Your task to perform on an android device: turn off airplane mode Image 0: 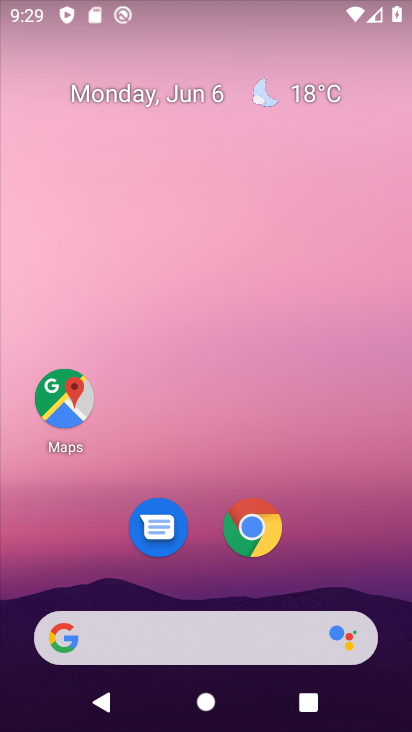
Step 0: drag from (187, 600) to (159, 23)
Your task to perform on an android device: turn off airplane mode Image 1: 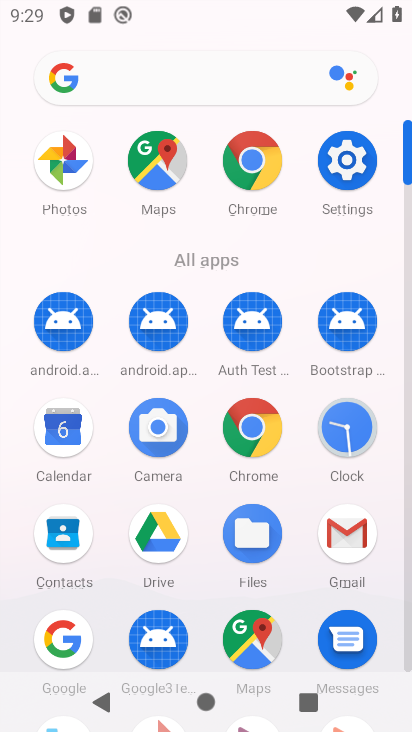
Step 1: click (323, 151)
Your task to perform on an android device: turn off airplane mode Image 2: 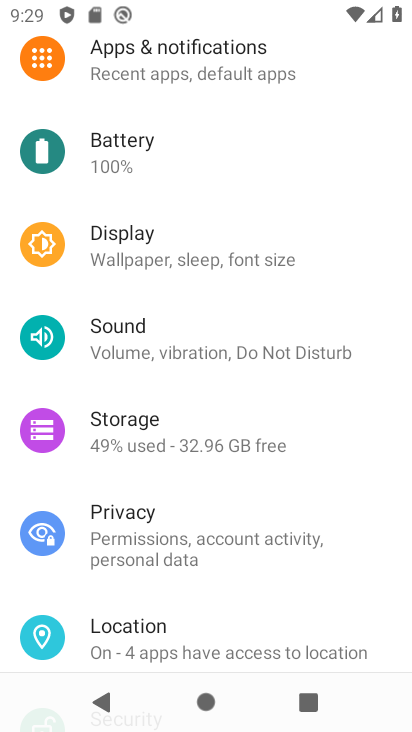
Step 2: drag from (323, 151) to (193, 580)
Your task to perform on an android device: turn off airplane mode Image 3: 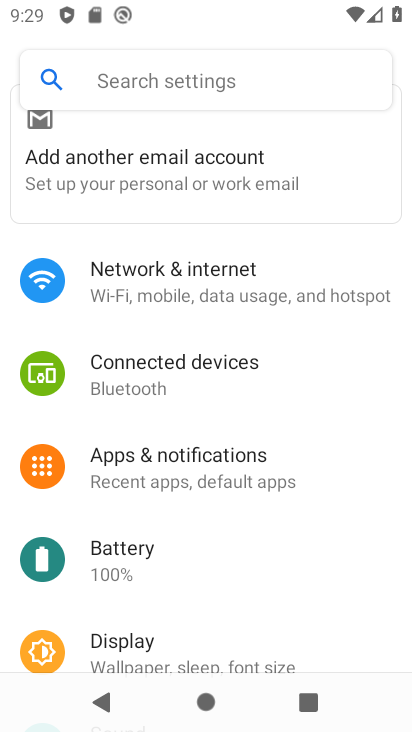
Step 3: click (143, 305)
Your task to perform on an android device: turn off airplane mode Image 4: 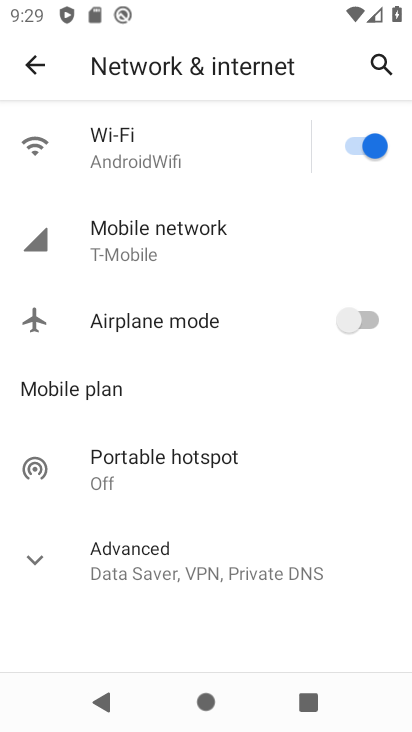
Step 4: task complete